Your task to perform on an android device: turn on sleep mode Image 0: 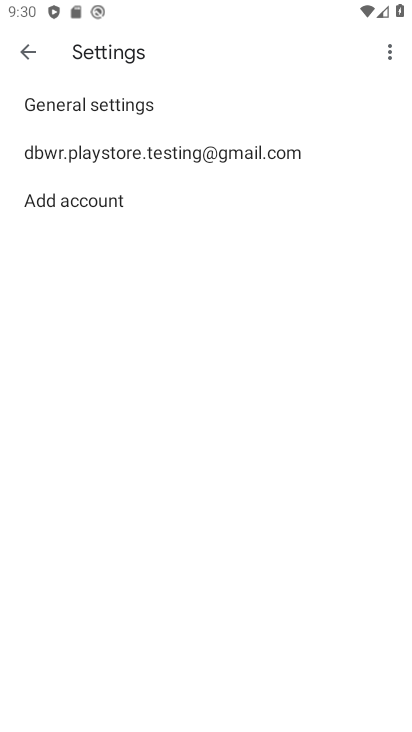
Step 0: press home button
Your task to perform on an android device: turn on sleep mode Image 1: 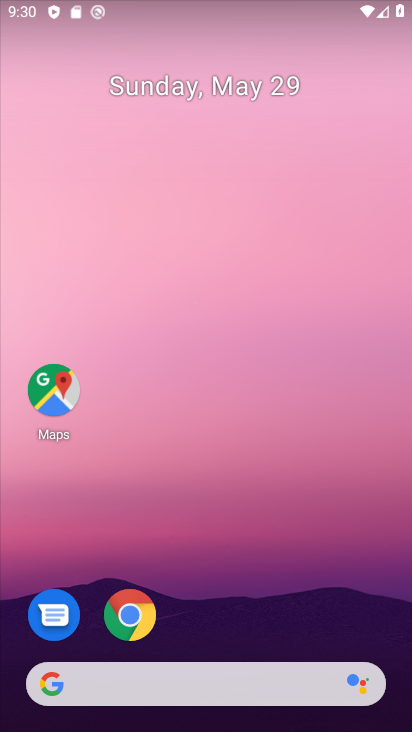
Step 1: drag from (213, 647) to (187, 7)
Your task to perform on an android device: turn on sleep mode Image 2: 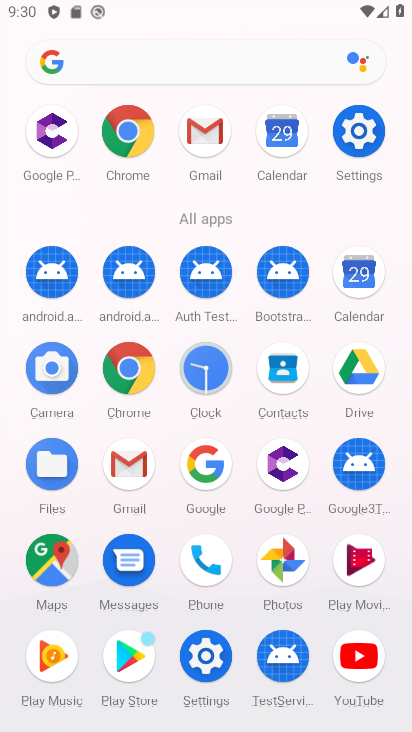
Step 2: click (362, 137)
Your task to perform on an android device: turn on sleep mode Image 3: 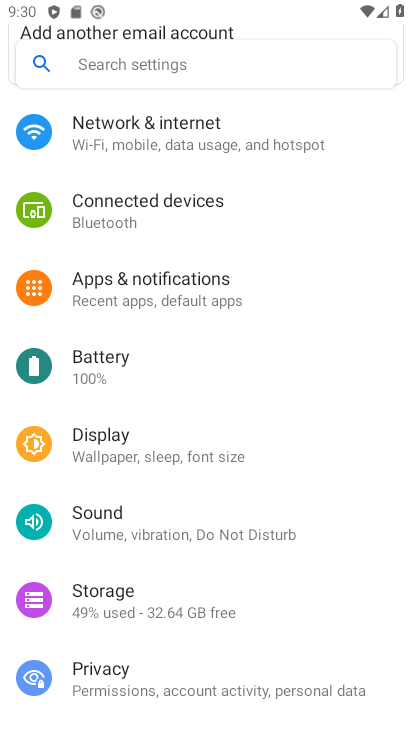
Step 3: click (111, 459)
Your task to perform on an android device: turn on sleep mode Image 4: 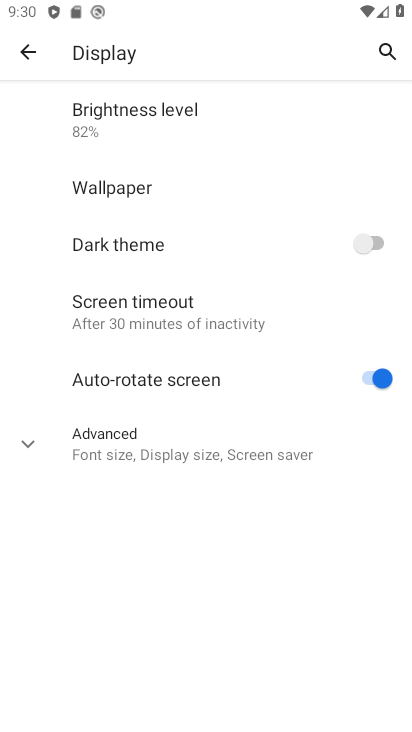
Step 4: task complete